Your task to perform on an android device: Show me the alarms in the clock app Image 0: 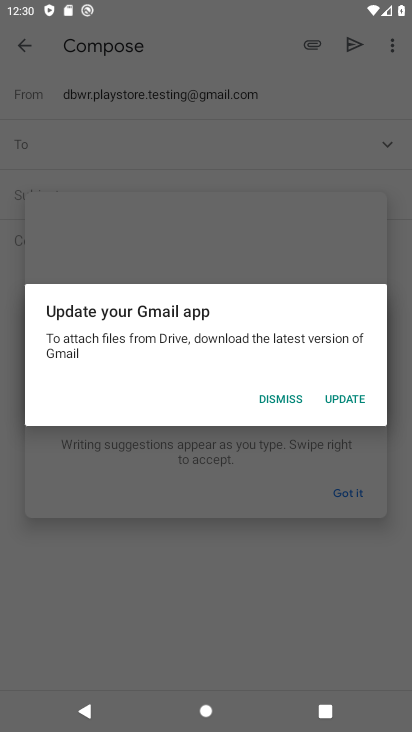
Step 0: click (285, 402)
Your task to perform on an android device: Show me the alarms in the clock app Image 1: 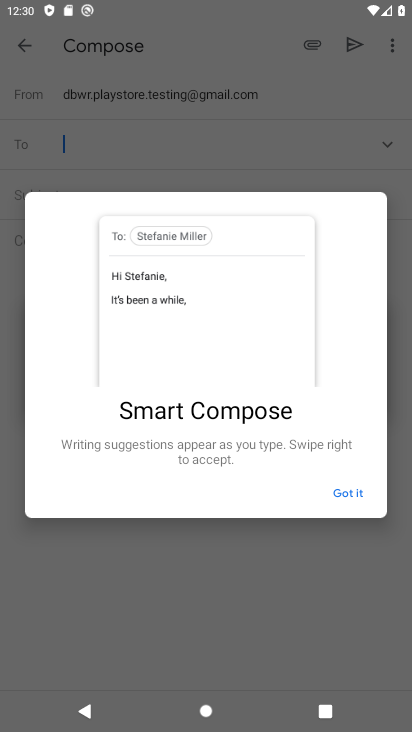
Step 1: press home button
Your task to perform on an android device: Show me the alarms in the clock app Image 2: 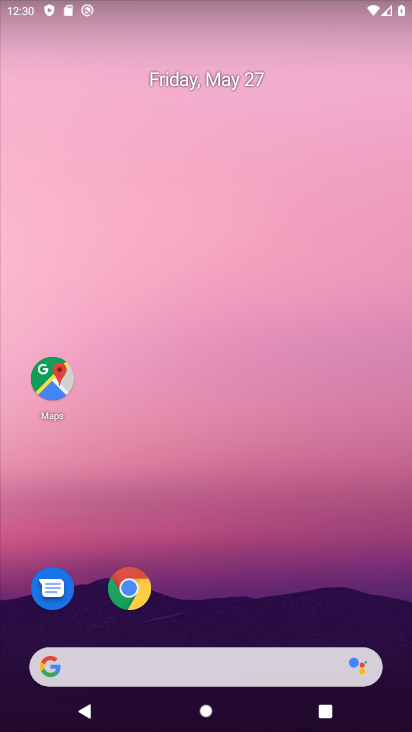
Step 2: drag from (177, 638) to (163, 35)
Your task to perform on an android device: Show me the alarms in the clock app Image 3: 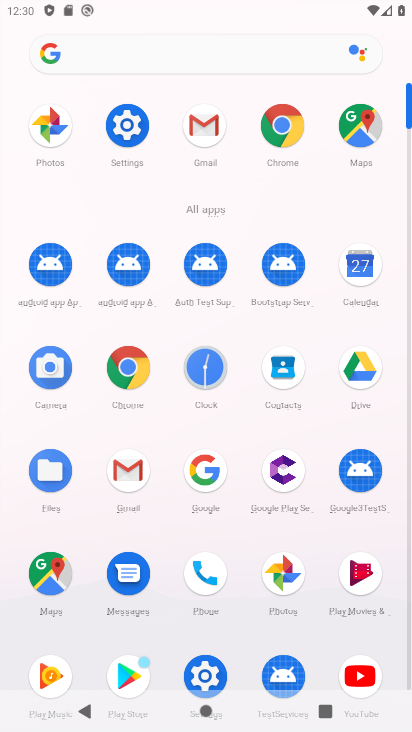
Step 3: click (180, 364)
Your task to perform on an android device: Show me the alarms in the clock app Image 4: 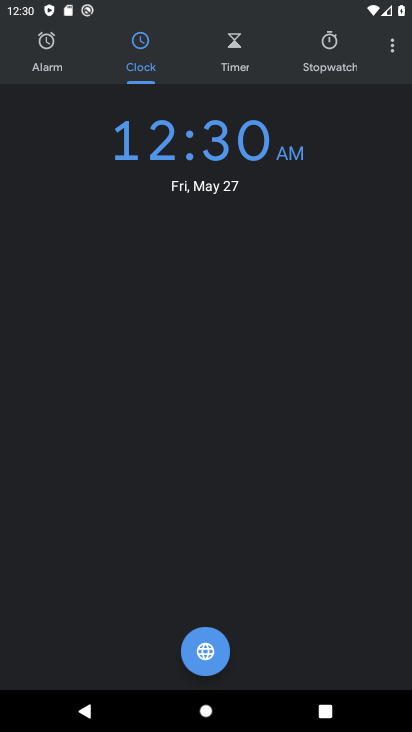
Step 4: click (44, 65)
Your task to perform on an android device: Show me the alarms in the clock app Image 5: 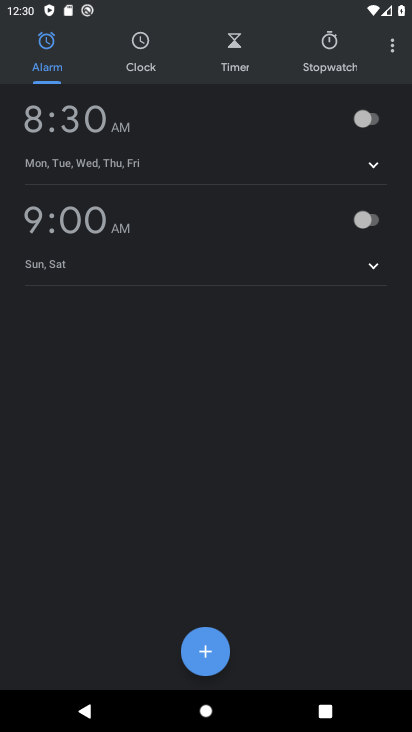
Step 5: task complete